Your task to perform on an android device: open app "Google Maps" Image 0: 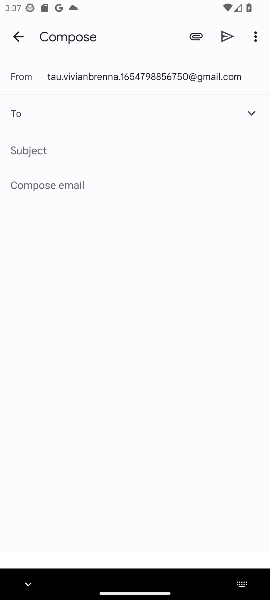
Step 0: press home button
Your task to perform on an android device: open app "Google Maps" Image 1: 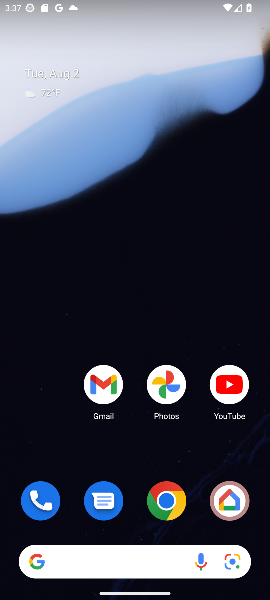
Step 1: drag from (140, 470) to (149, 165)
Your task to perform on an android device: open app "Google Maps" Image 2: 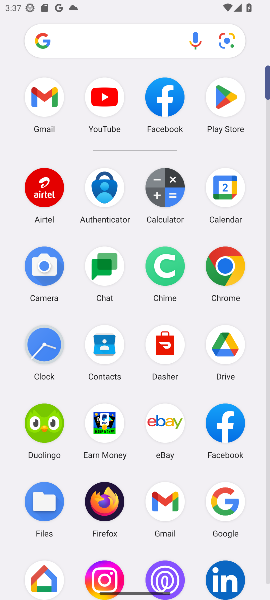
Step 2: drag from (267, 387) to (268, 357)
Your task to perform on an android device: open app "Google Maps" Image 3: 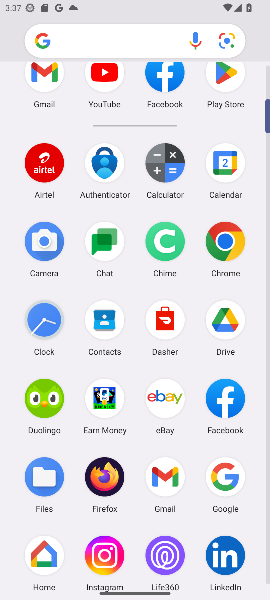
Step 3: drag from (268, 397) to (270, 324)
Your task to perform on an android device: open app "Google Maps" Image 4: 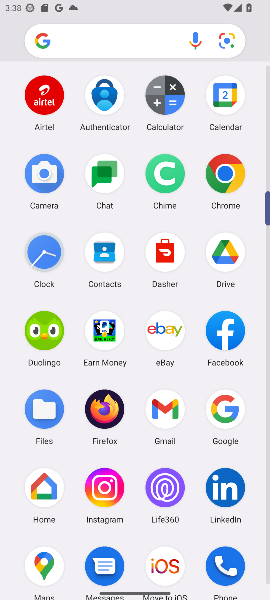
Step 4: drag from (268, 459) to (269, 390)
Your task to perform on an android device: open app "Google Maps" Image 5: 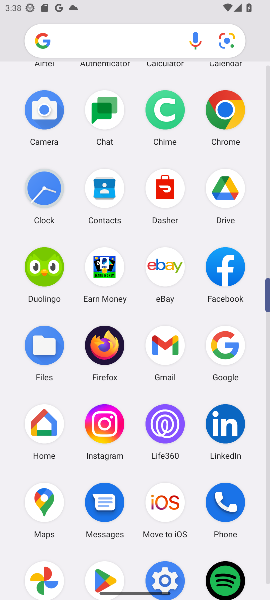
Step 5: click (45, 505)
Your task to perform on an android device: open app "Google Maps" Image 6: 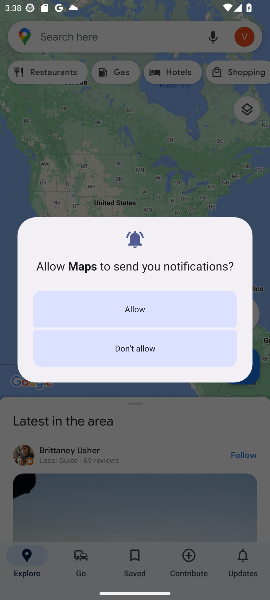
Step 6: task complete